Your task to perform on an android device: Show me popular games on the Play Store Image 0: 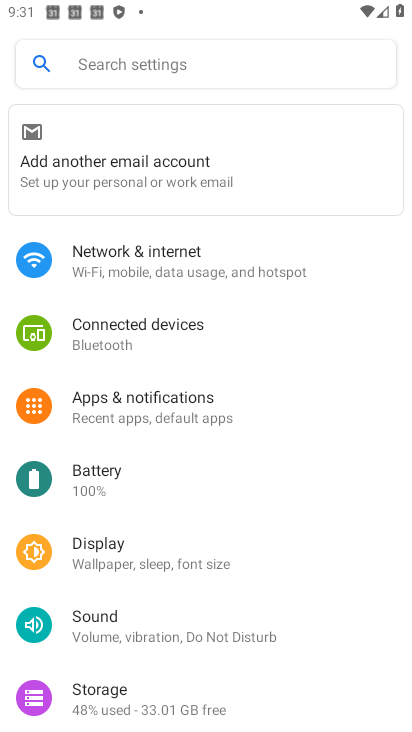
Step 0: press home button
Your task to perform on an android device: Show me popular games on the Play Store Image 1: 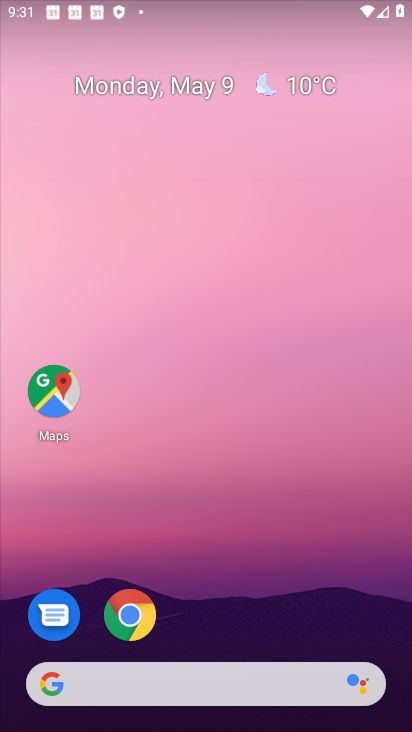
Step 1: drag from (201, 647) to (306, 54)
Your task to perform on an android device: Show me popular games on the Play Store Image 2: 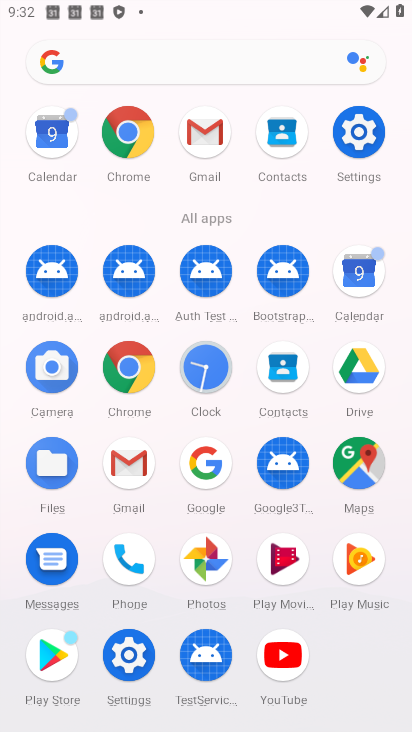
Step 2: click (49, 655)
Your task to perform on an android device: Show me popular games on the Play Store Image 3: 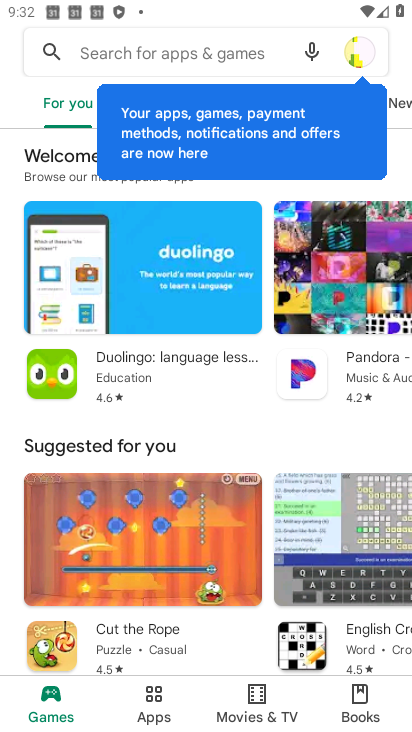
Step 3: click (367, 56)
Your task to perform on an android device: Show me popular games on the Play Store Image 4: 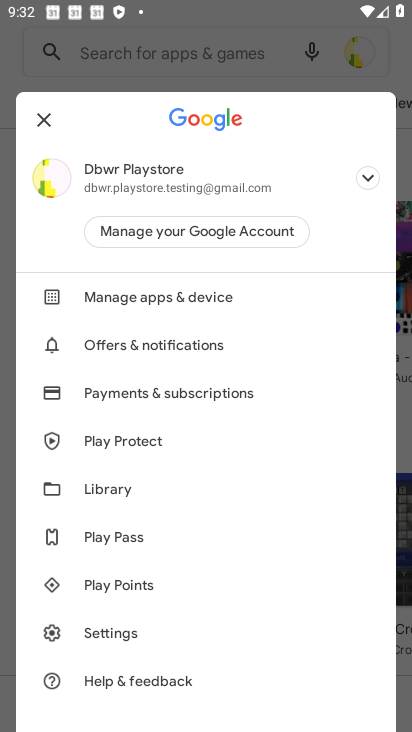
Step 4: click (43, 126)
Your task to perform on an android device: Show me popular games on the Play Store Image 5: 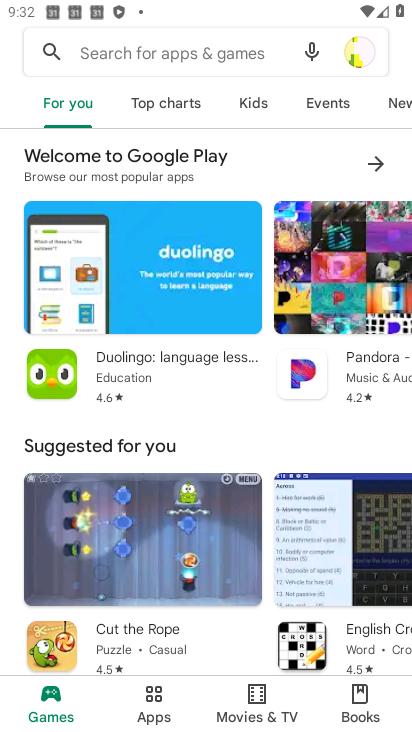
Step 5: click (153, 114)
Your task to perform on an android device: Show me popular games on the Play Store Image 6: 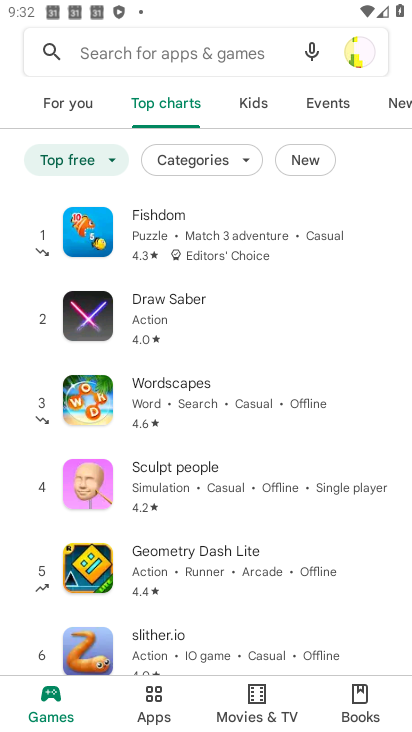
Step 6: task complete